Your task to perform on an android device: Search for seafood restaurants on Google Maps Image 0: 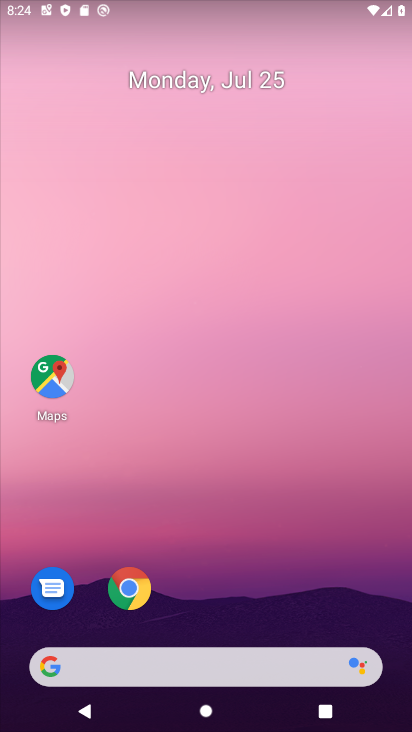
Step 0: drag from (160, 646) to (189, 243)
Your task to perform on an android device: Search for seafood restaurants on Google Maps Image 1: 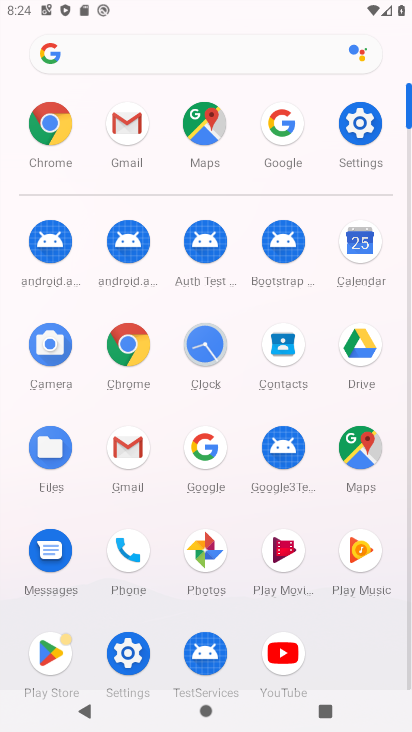
Step 1: click (359, 455)
Your task to perform on an android device: Search for seafood restaurants on Google Maps Image 2: 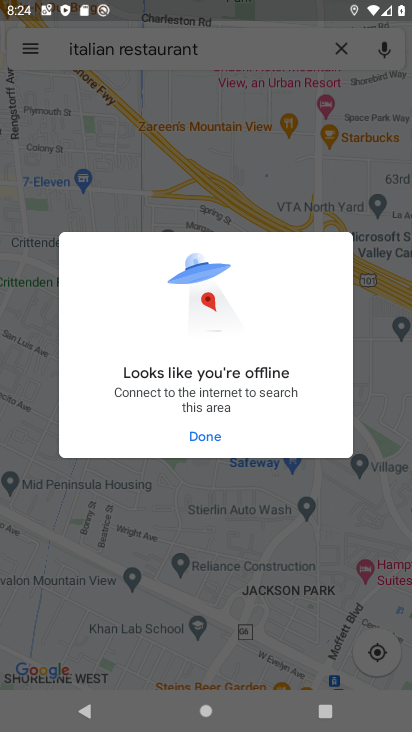
Step 2: click (206, 441)
Your task to perform on an android device: Search for seafood restaurants on Google Maps Image 3: 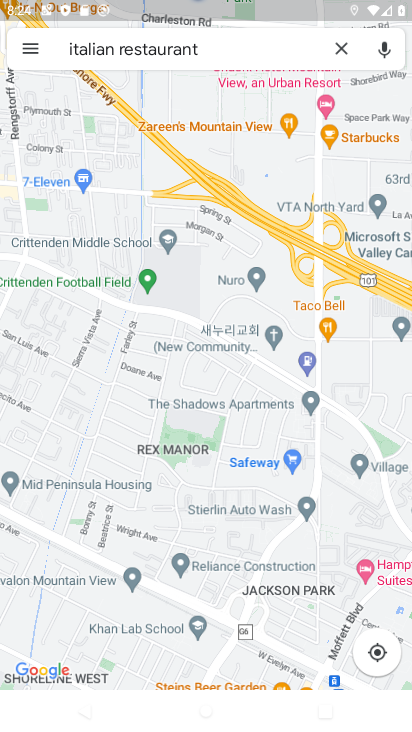
Step 3: click (103, 55)
Your task to perform on an android device: Search for seafood restaurants on Google Maps Image 4: 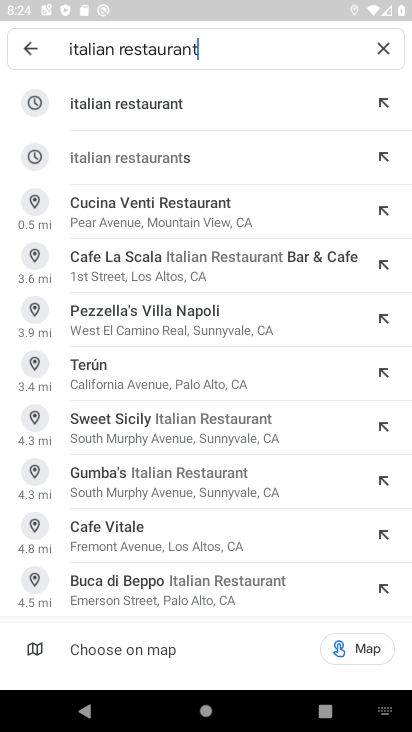
Step 4: click (384, 47)
Your task to perform on an android device: Search for seafood restaurants on Google Maps Image 5: 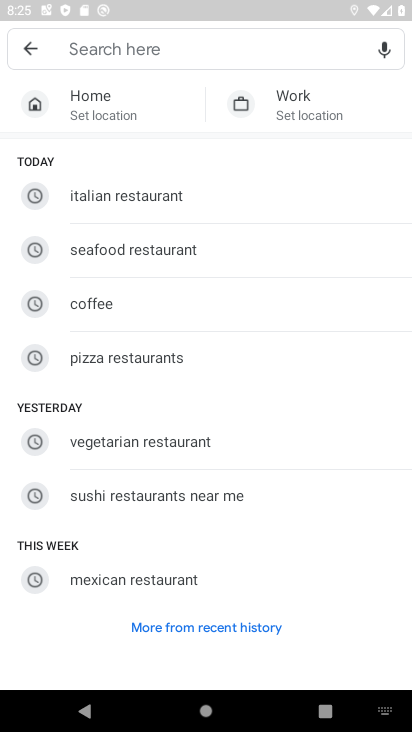
Step 5: click (153, 255)
Your task to perform on an android device: Search for seafood restaurants on Google Maps Image 6: 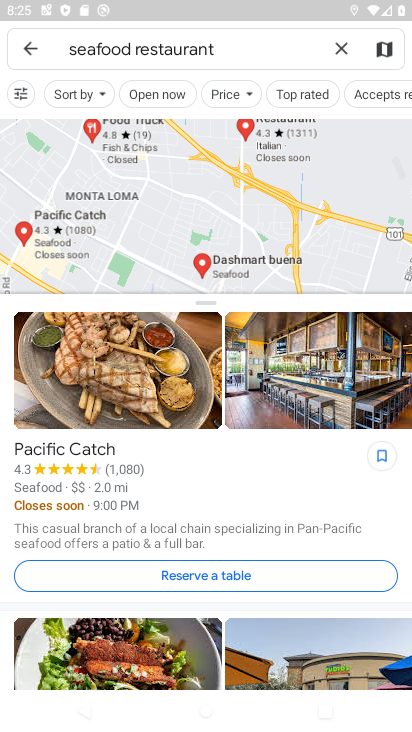
Step 6: task complete